Your task to perform on an android device: toggle sleep mode Image 0: 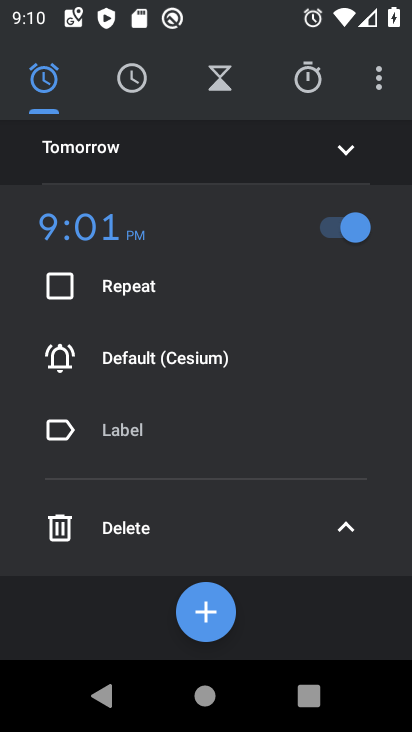
Step 0: press home button
Your task to perform on an android device: toggle sleep mode Image 1: 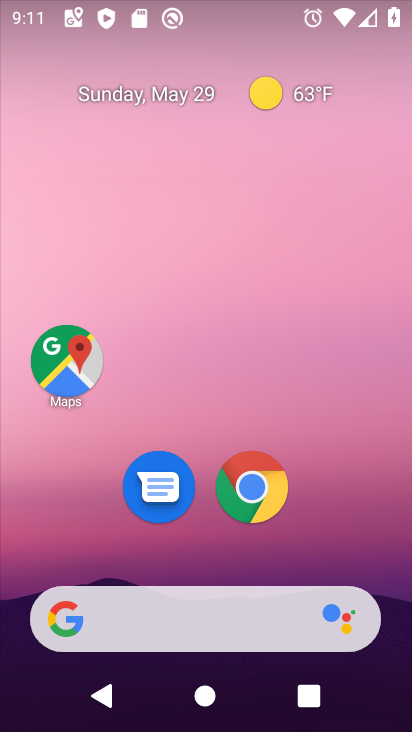
Step 1: drag from (254, 548) to (307, 137)
Your task to perform on an android device: toggle sleep mode Image 2: 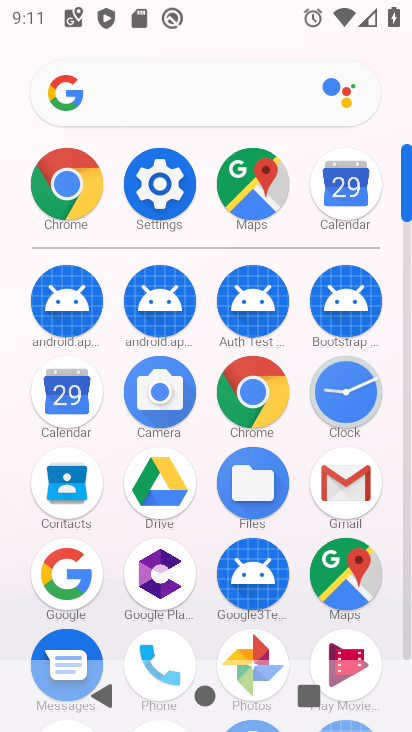
Step 2: click (166, 196)
Your task to perform on an android device: toggle sleep mode Image 3: 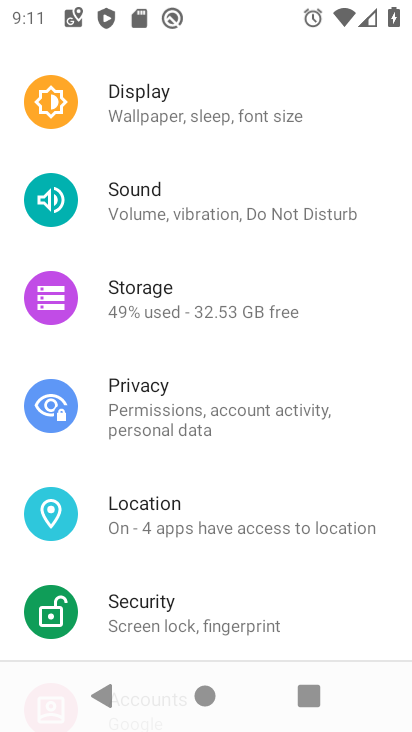
Step 3: click (232, 116)
Your task to perform on an android device: toggle sleep mode Image 4: 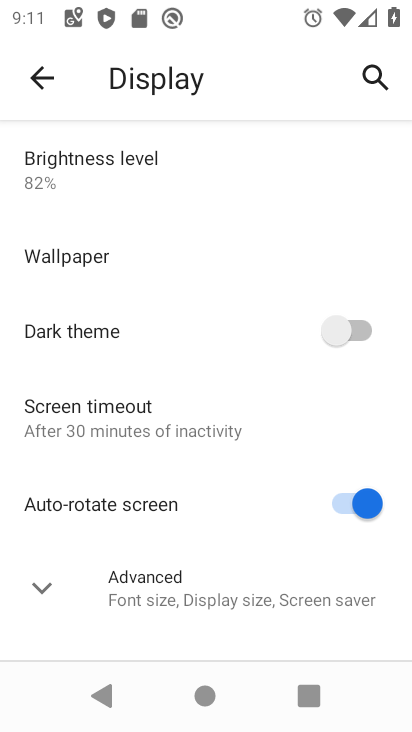
Step 4: click (154, 579)
Your task to perform on an android device: toggle sleep mode Image 5: 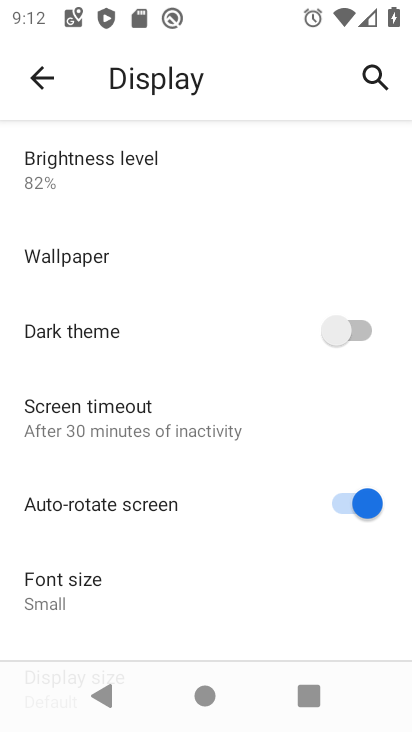
Step 5: task complete